Your task to perform on an android device: set the stopwatch Image 0: 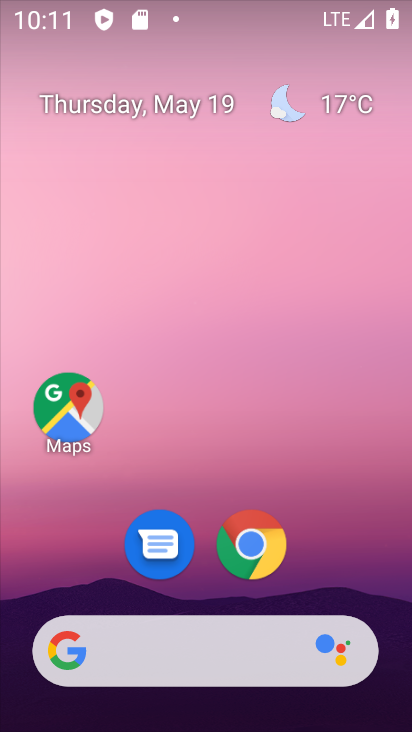
Step 0: drag from (274, 723) to (326, 16)
Your task to perform on an android device: set the stopwatch Image 1: 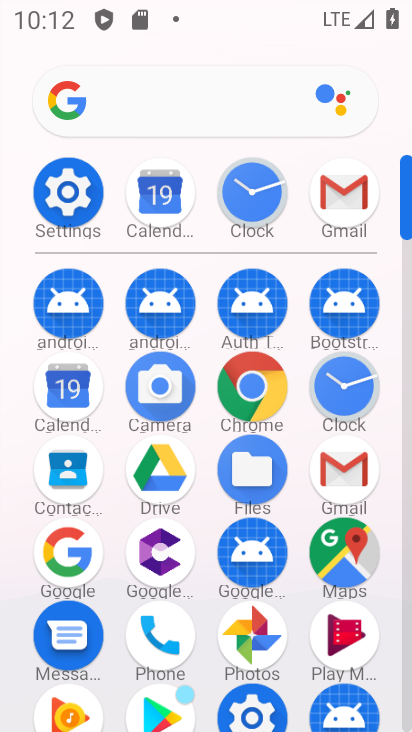
Step 1: click (241, 204)
Your task to perform on an android device: set the stopwatch Image 2: 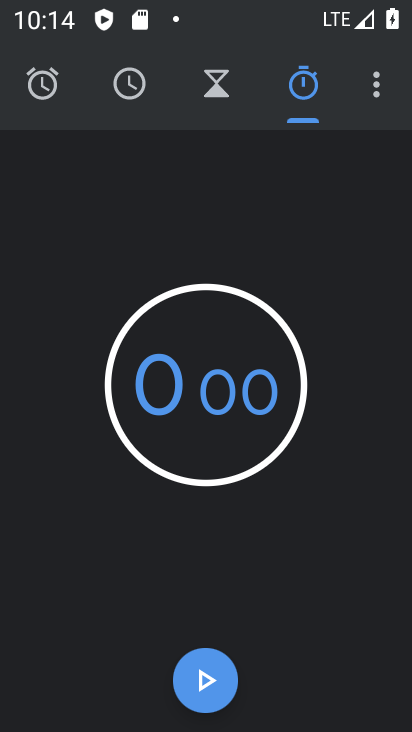
Step 2: task complete